Your task to perform on an android device: toggle pop-ups in chrome Image 0: 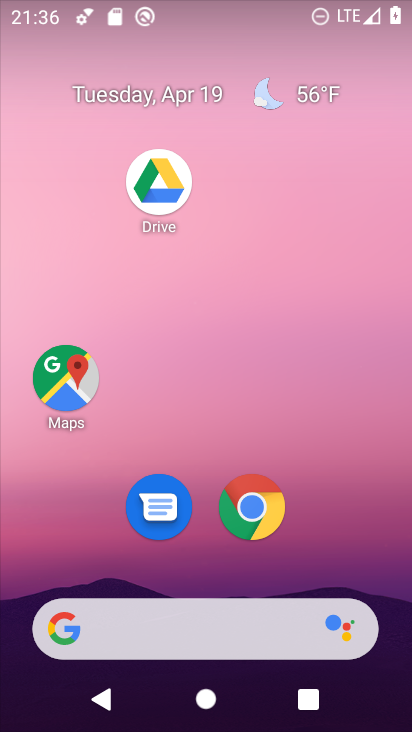
Step 0: click (256, 512)
Your task to perform on an android device: toggle pop-ups in chrome Image 1: 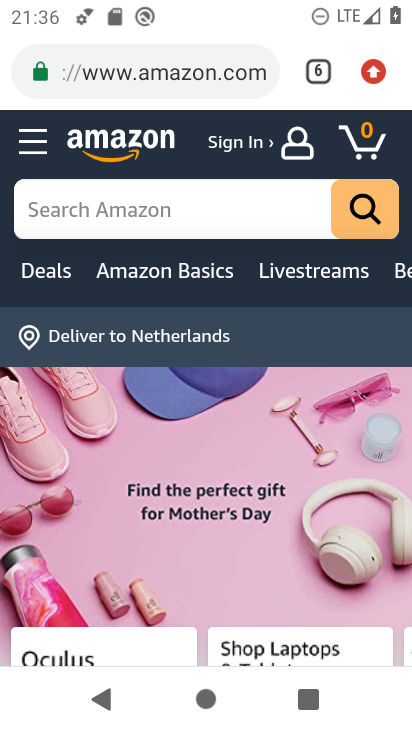
Step 1: click (372, 68)
Your task to perform on an android device: toggle pop-ups in chrome Image 2: 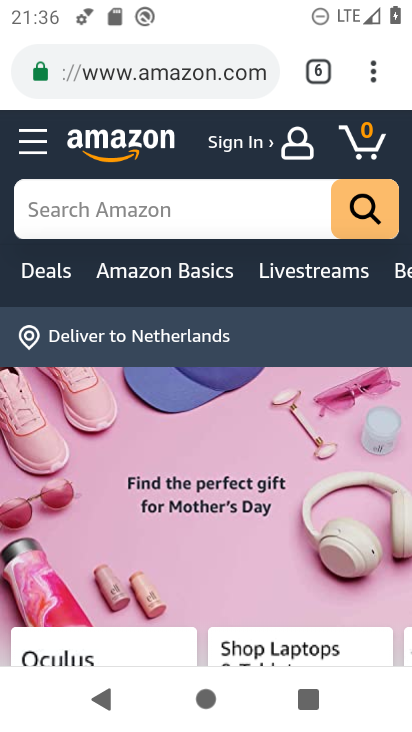
Step 2: drag from (372, 68) to (210, 511)
Your task to perform on an android device: toggle pop-ups in chrome Image 3: 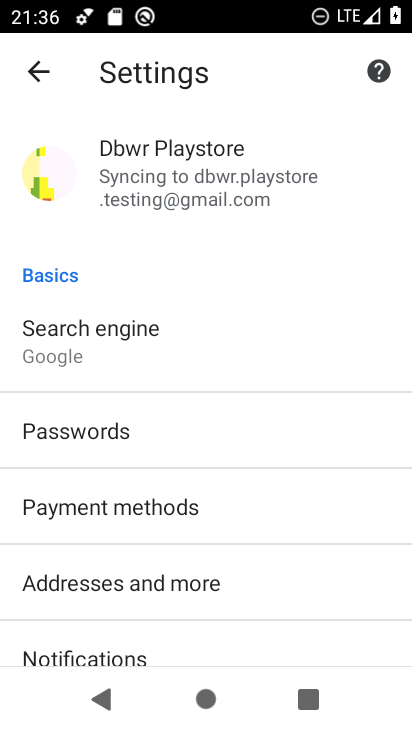
Step 3: drag from (274, 659) to (310, 158)
Your task to perform on an android device: toggle pop-ups in chrome Image 4: 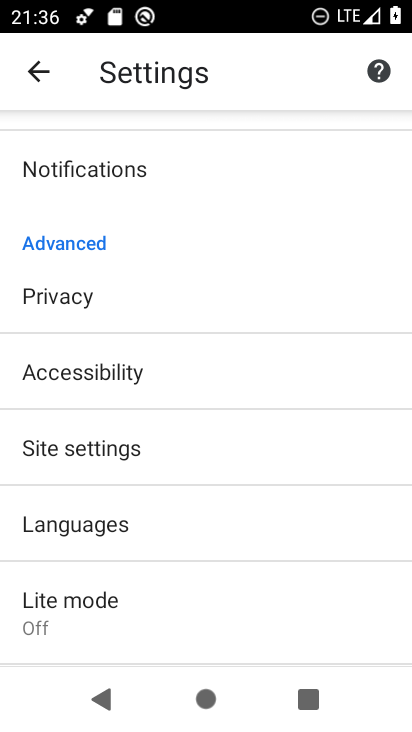
Step 4: click (193, 449)
Your task to perform on an android device: toggle pop-ups in chrome Image 5: 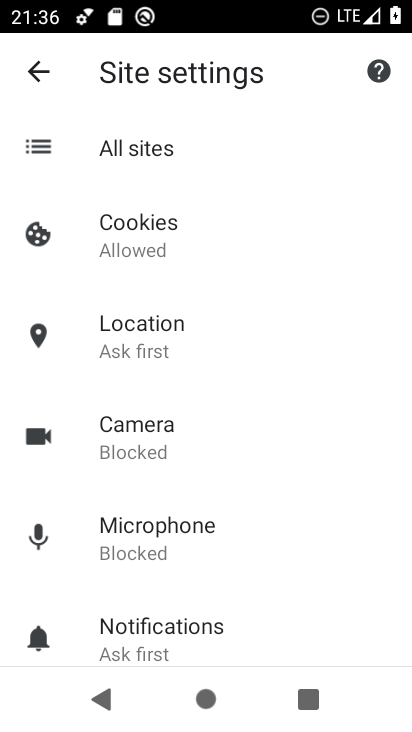
Step 5: drag from (274, 585) to (287, 161)
Your task to perform on an android device: toggle pop-ups in chrome Image 6: 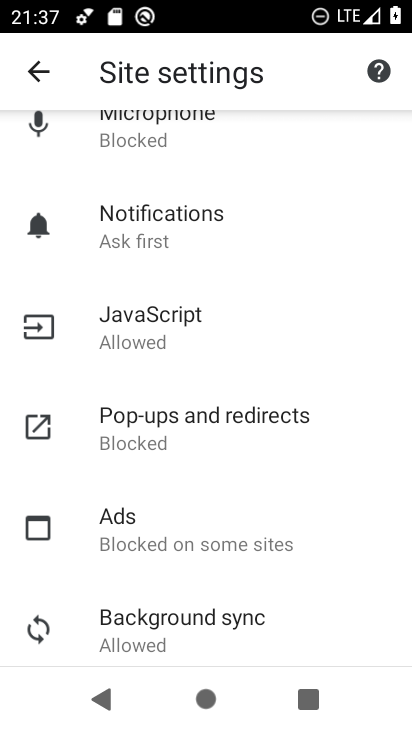
Step 6: click (237, 422)
Your task to perform on an android device: toggle pop-ups in chrome Image 7: 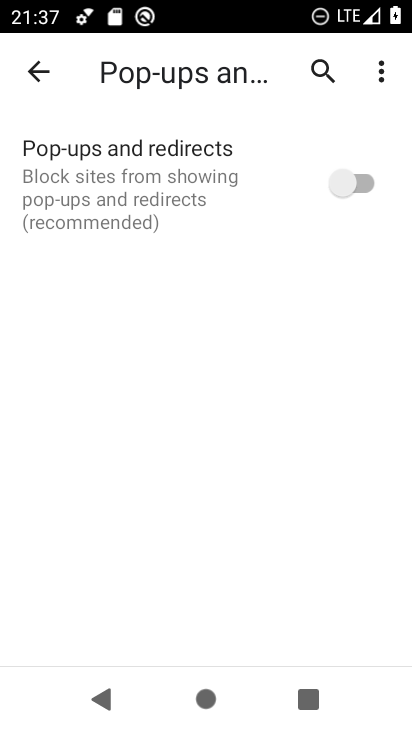
Step 7: click (362, 174)
Your task to perform on an android device: toggle pop-ups in chrome Image 8: 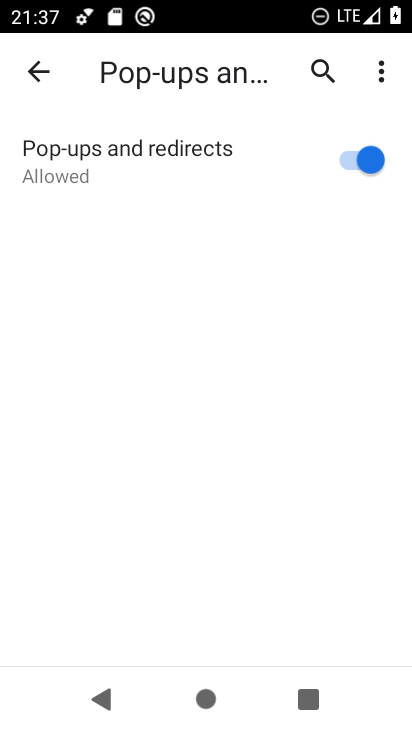
Step 8: task complete